Your task to perform on an android device: turn on the 24-hour format for clock Image 0: 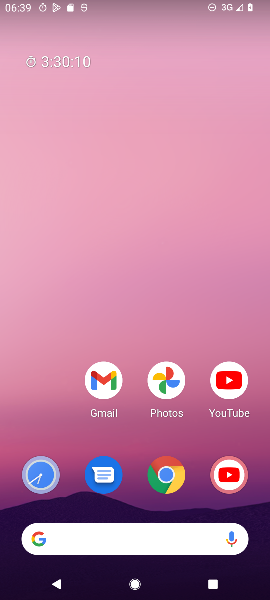
Step 0: press home button
Your task to perform on an android device: turn on the 24-hour format for clock Image 1: 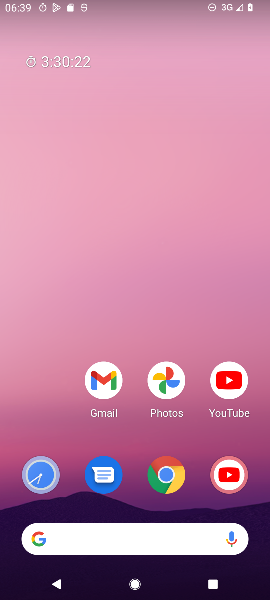
Step 1: drag from (54, 415) to (61, 160)
Your task to perform on an android device: turn on the 24-hour format for clock Image 2: 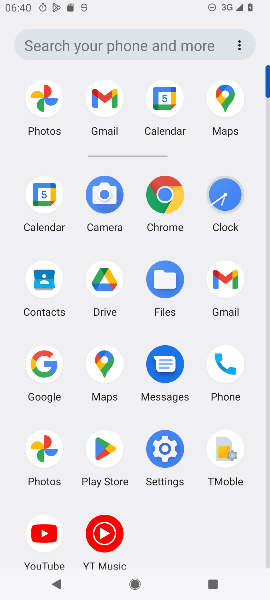
Step 2: click (224, 201)
Your task to perform on an android device: turn on the 24-hour format for clock Image 3: 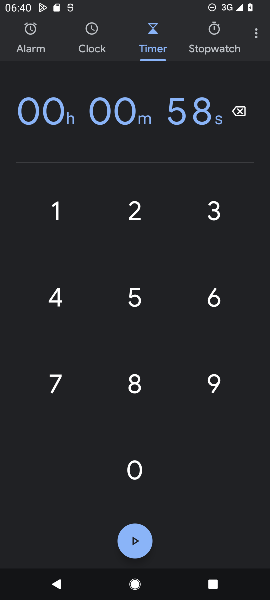
Step 3: click (254, 38)
Your task to perform on an android device: turn on the 24-hour format for clock Image 4: 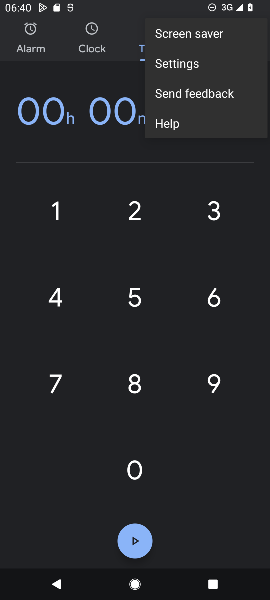
Step 4: click (208, 62)
Your task to perform on an android device: turn on the 24-hour format for clock Image 5: 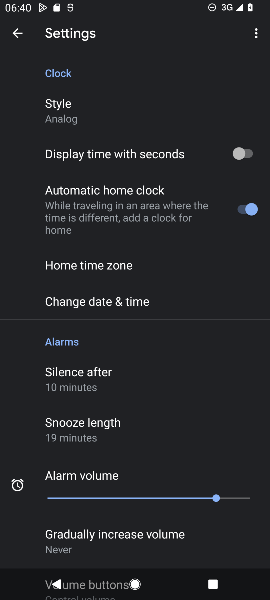
Step 5: click (118, 303)
Your task to perform on an android device: turn on the 24-hour format for clock Image 6: 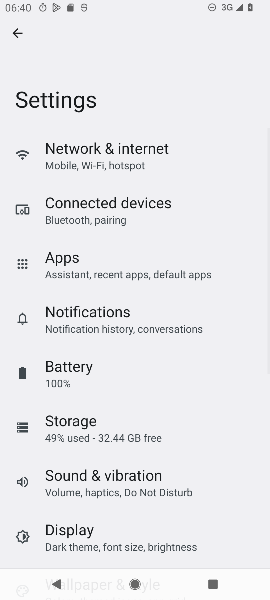
Step 6: task complete